Your task to perform on an android device: Open the stopwatch Image 0: 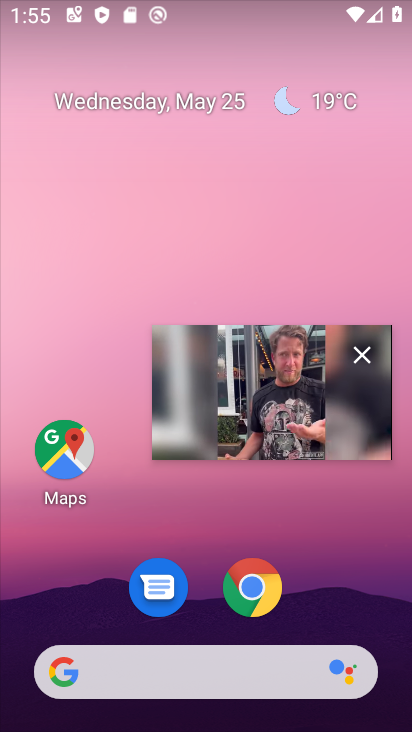
Step 0: click (362, 351)
Your task to perform on an android device: Open the stopwatch Image 1: 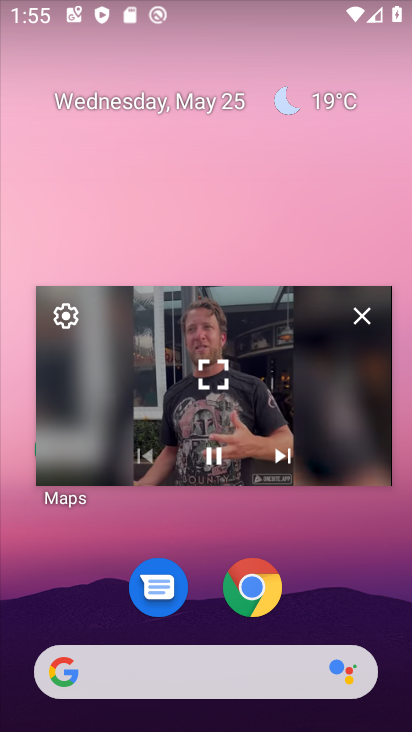
Step 1: click (363, 317)
Your task to perform on an android device: Open the stopwatch Image 2: 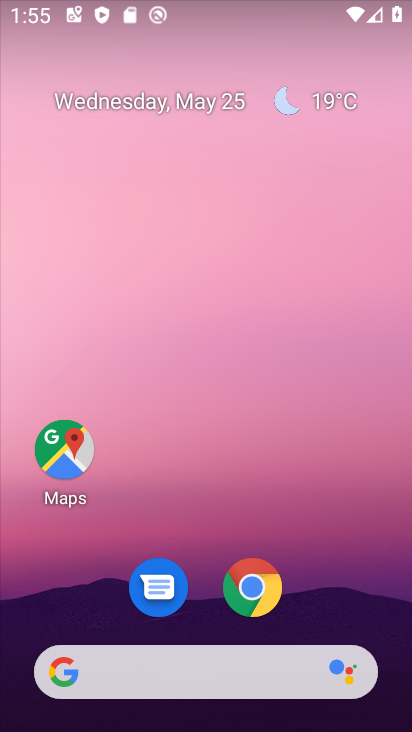
Step 2: drag from (339, 585) to (340, 97)
Your task to perform on an android device: Open the stopwatch Image 3: 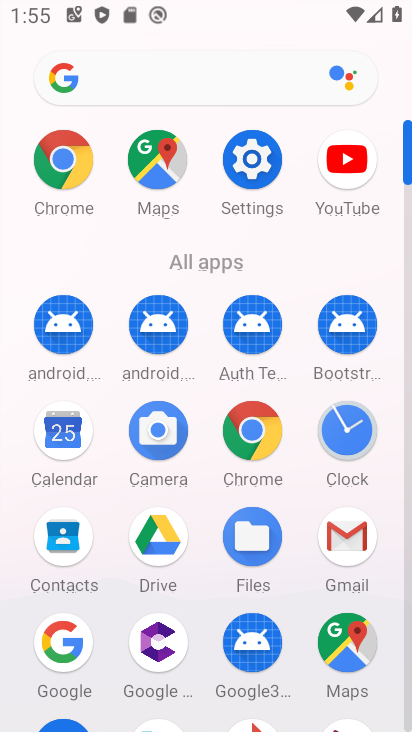
Step 3: click (363, 433)
Your task to perform on an android device: Open the stopwatch Image 4: 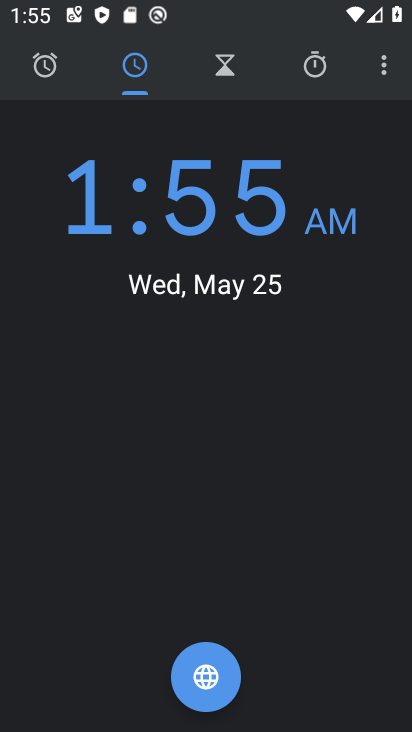
Step 4: drag from (368, 66) to (339, 198)
Your task to perform on an android device: Open the stopwatch Image 5: 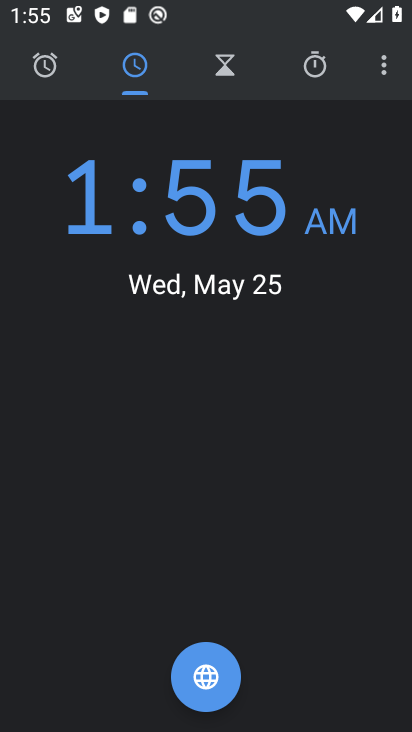
Step 5: click (108, 142)
Your task to perform on an android device: Open the stopwatch Image 6: 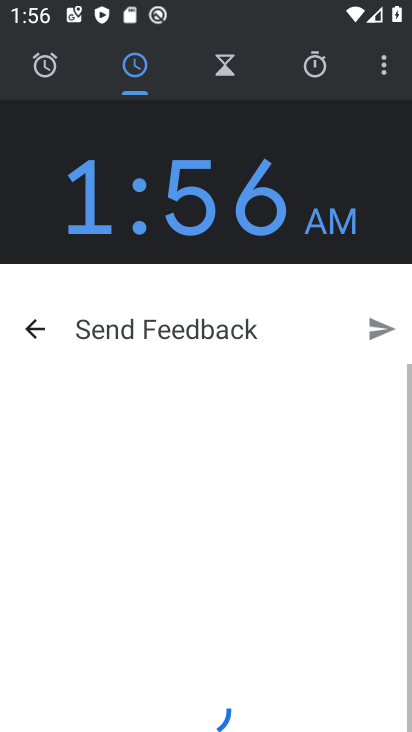
Step 6: click (309, 65)
Your task to perform on an android device: Open the stopwatch Image 7: 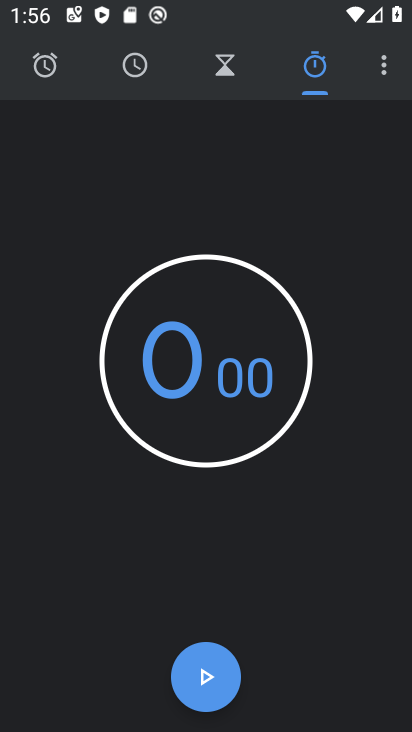
Step 7: click (210, 672)
Your task to perform on an android device: Open the stopwatch Image 8: 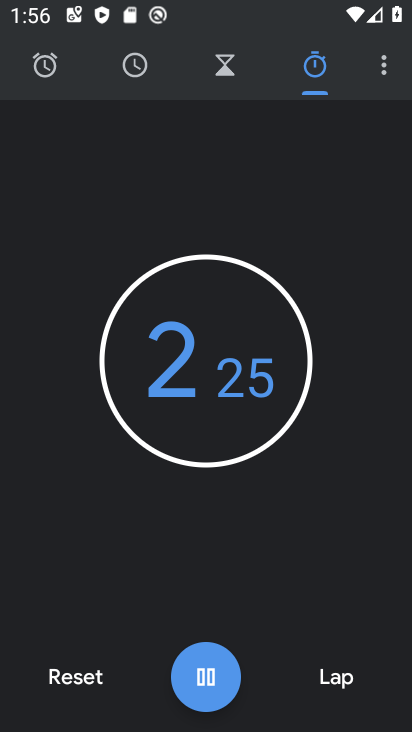
Step 8: click (209, 682)
Your task to perform on an android device: Open the stopwatch Image 9: 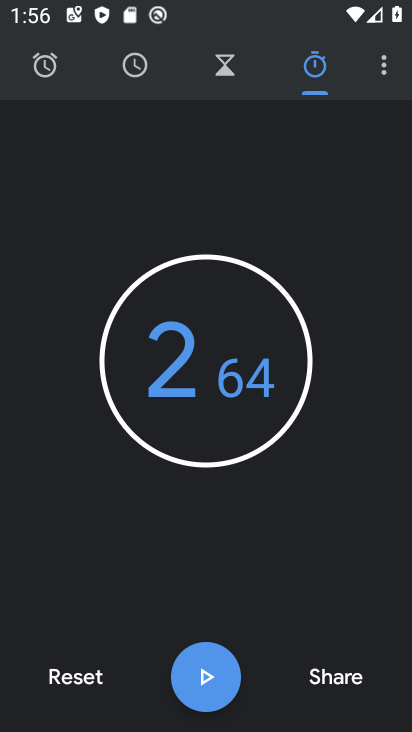
Step 9: task complete